Your task to perform on an android device: toggle data saver in the chrome app Image 0: 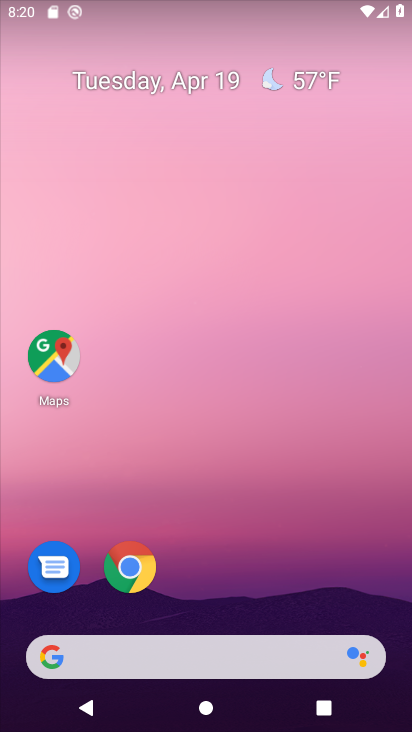
Step 0: click (129, 570)
Your task to perform on an android device: toggle data saver in the chrome app Image 1: 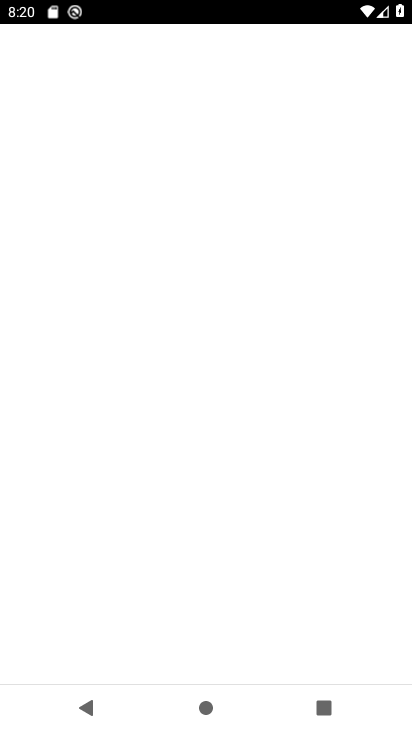
Step 1: click (129, 570)
Your task to perform on an android device: toggle data saver in the chrome app Image 2: 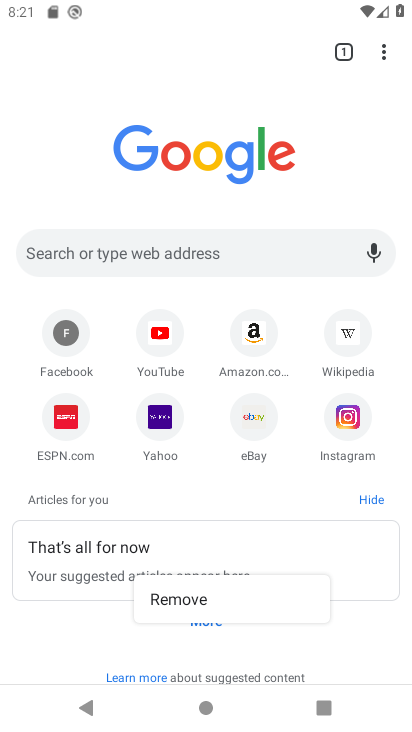
Step 2: click (388, 51)
Your task to perform on an android device: toggle data saver in the chrome app Image 3: 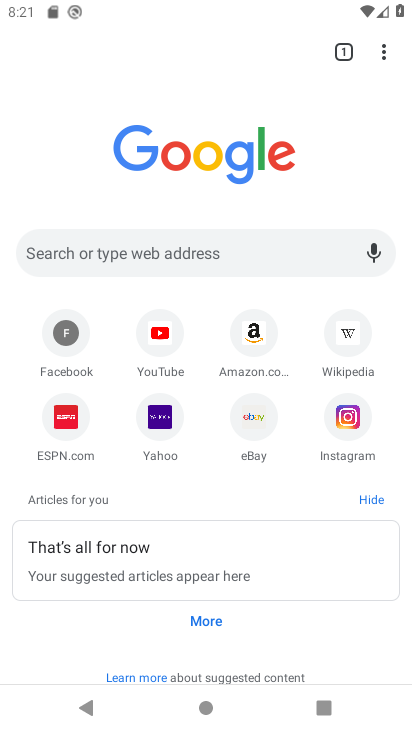
Step 3: click (381, 52)
Your task to perform on an android device: toggle data saver in the chrome app Image 4: 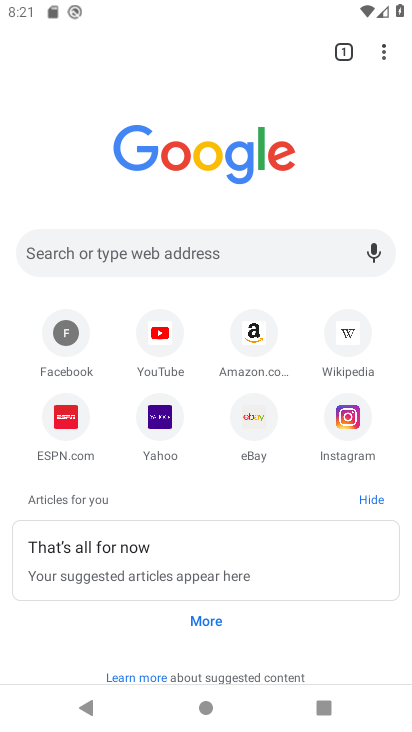
Step 4: click (381, 52)
Your task to perform on an android device: toggle data saver in the chrome app Image 5: 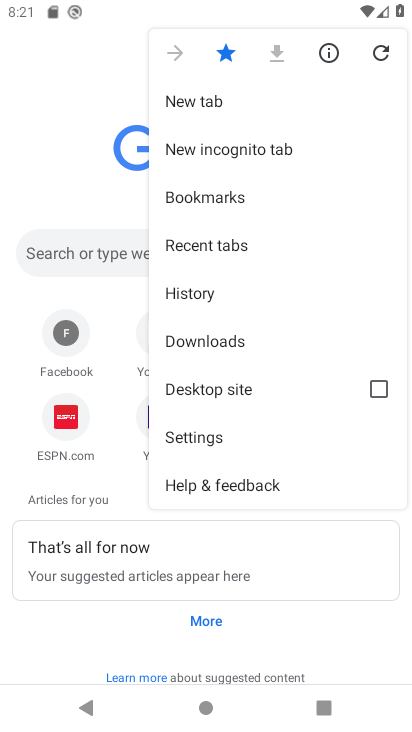
Step 5: click (239, 435)
Your task to perform on an android device: toggle data saver in the chrome app Image 6: 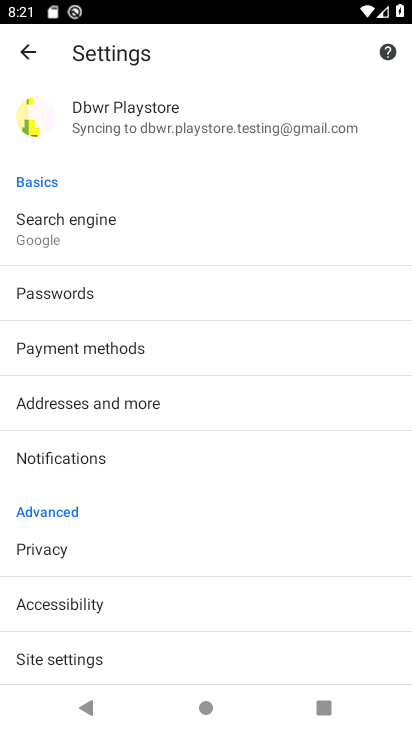
Step 6: drag from (197, 628) to (152, 166)
Your task to perform on an android device: toggle data saver in the chrome app Image 7: 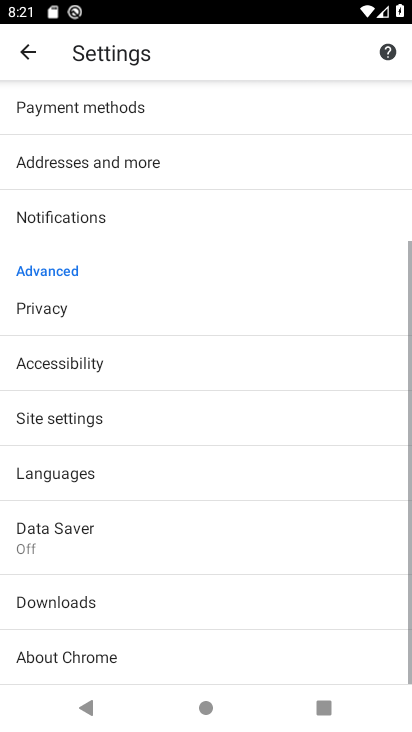
Step 7: click (127, 532)
Your task to perform on an android device: toggle data saver in the chrome app Image 8: 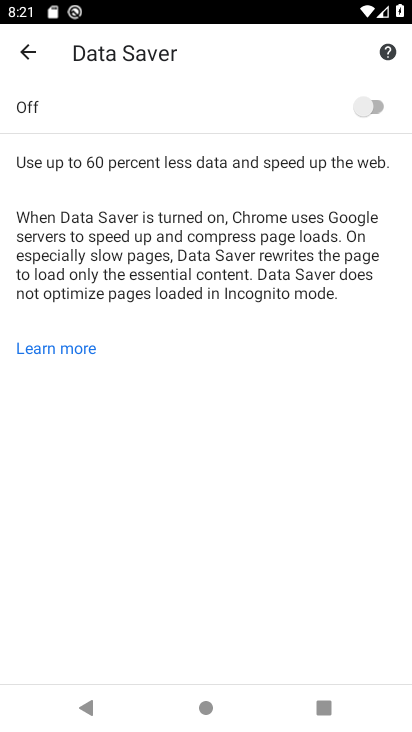
Step 8: click (371, 103)
Your task to perform on an android device: toggle data saver in the chrome app Image 9: 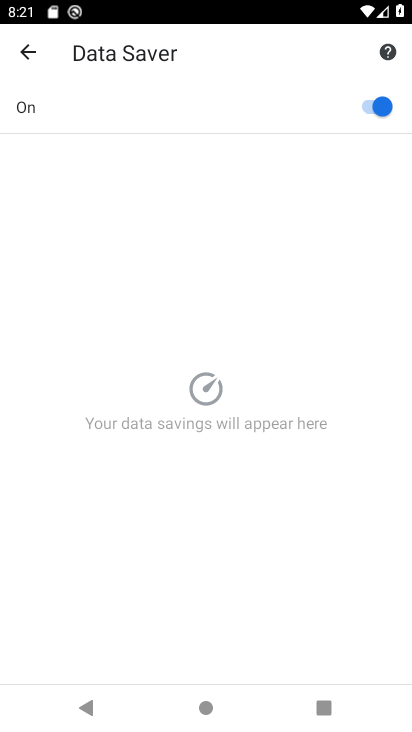
Step 9: task complete